Your task to perform on an android device: Open Youtube and go to the subscriptions tab Image 0: 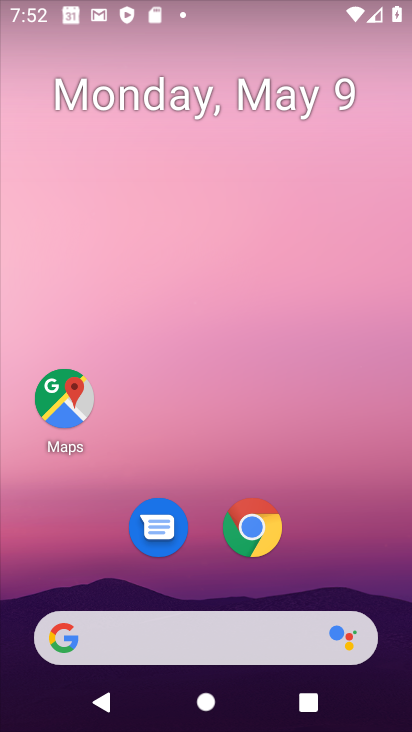
Step 0: drag from (255, 675) to (236, 204)
Your task to perform on an android device: Open Youtube and go to the subscriptions tab Image 1: 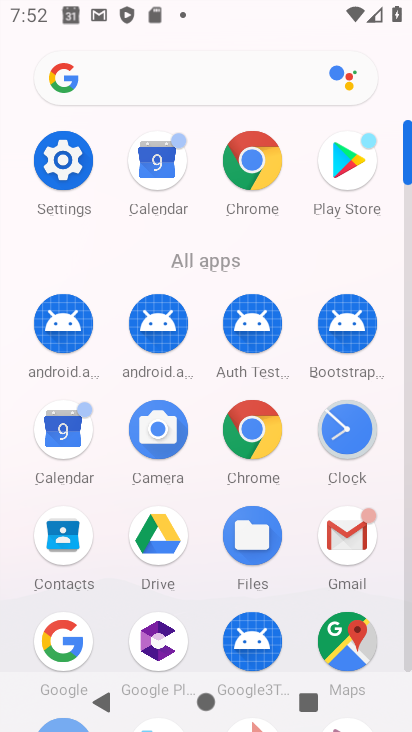
Step 1: drag from (271, 565) to (315, 197)
Your task to perform on an android device: Open Youtube and go to the subscriptions tab Image 2: 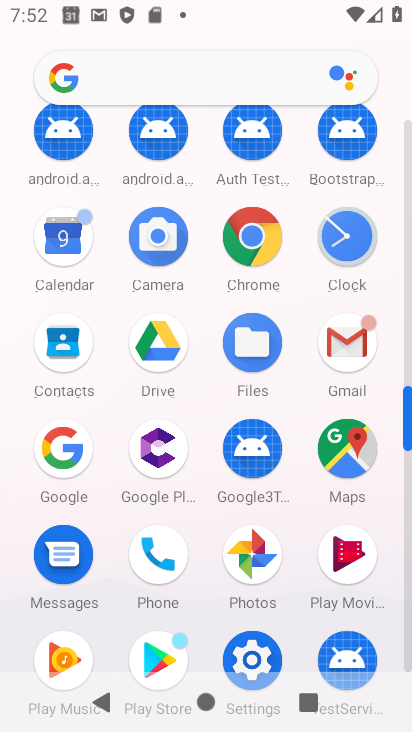
Step 2: drag from (264, 522) to (263, 225)
Your task to perform on an android device: Open Youtube and go to the subscriptions tab Image 3: 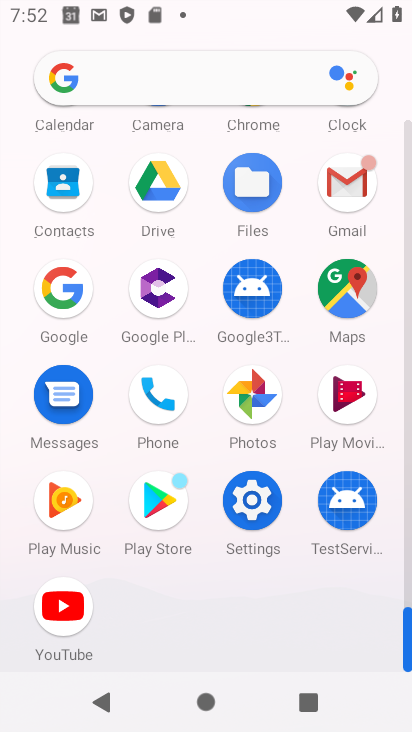
Step 3: click (72, 613)
Your task to perform on an android device: Open Youtube and go to the subscriptions tab Image 4: 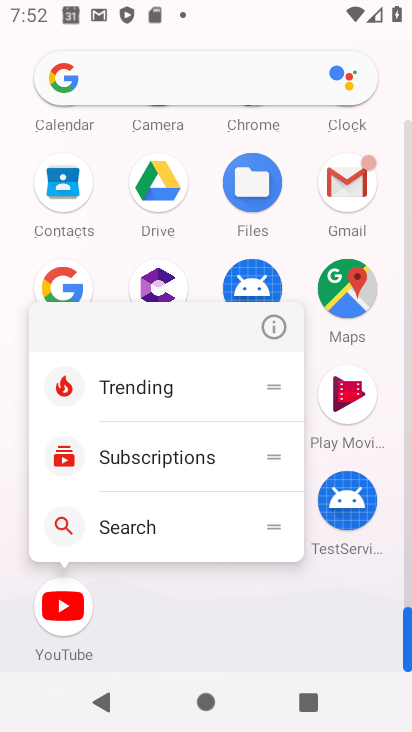
Step 4: click (57, 622)
Your task to perform on an android device: Open Youtube and go to the subscriptions tab Image 5: 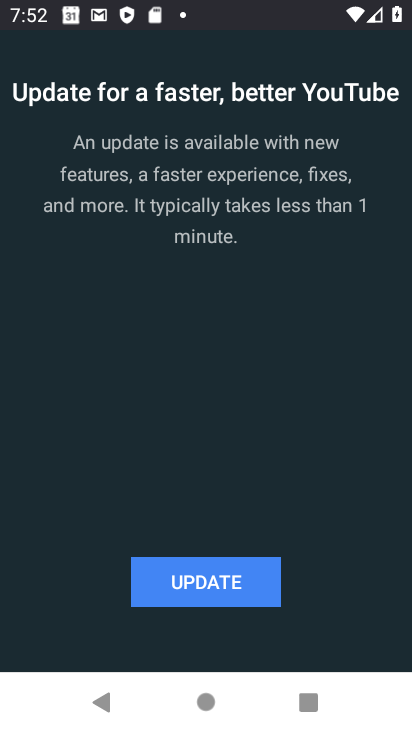
Step 5: click (268, 594)
Your task to perform on an android device: Open Youtube and go to the subscriptions tab Image 6: 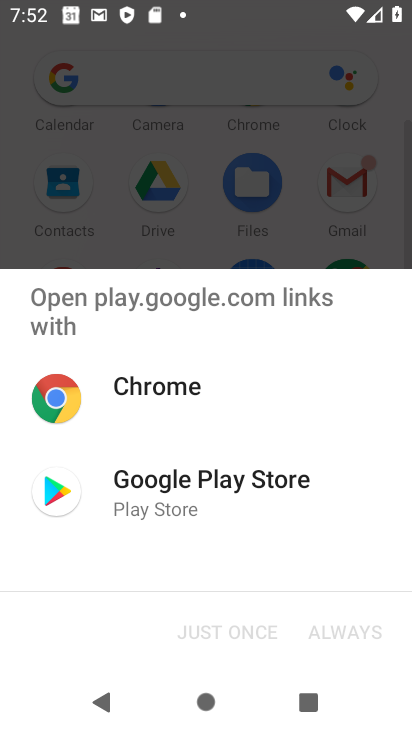
Step 6: click (176, 387)
Your task to perform on an android device: Open Youtube and go to the subscriptions tab Image 7: 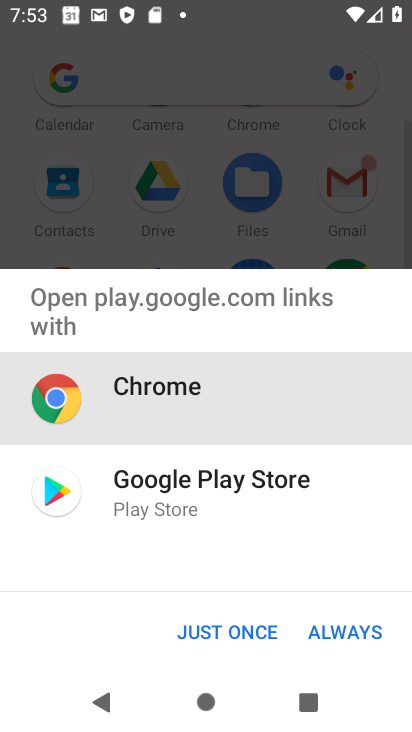
Step 7: task complete